Your task to perform on an android device: turn off translation in the chrome app Image 0: 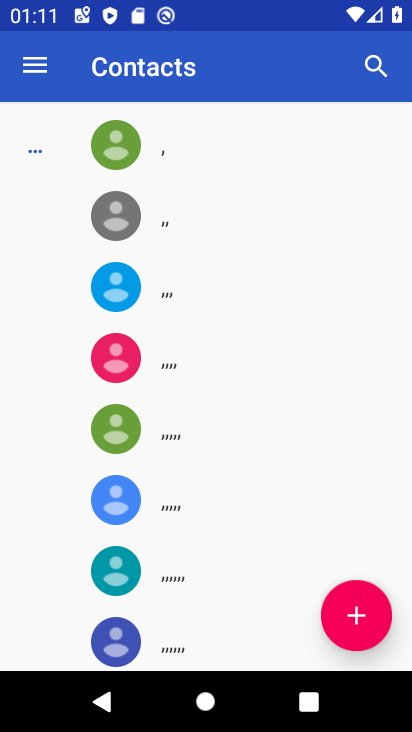
Step 0: press home button
Your task to perform on an android device: turn off translation in the chrome app Image 1: 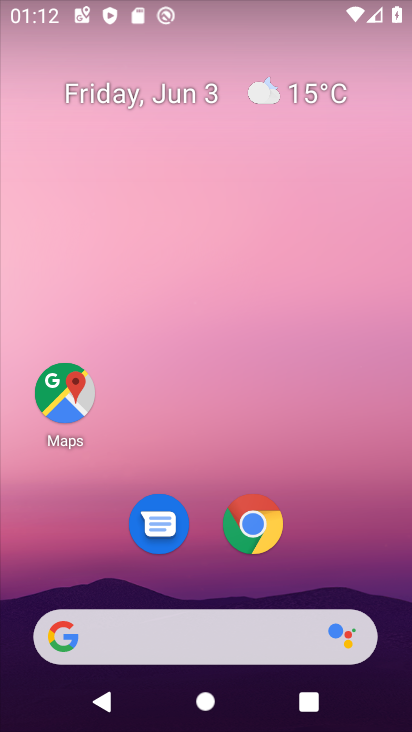
Step 1: click (258, 510)
Your task to perform on an android device: turn off translation in the chrome app Image 2: 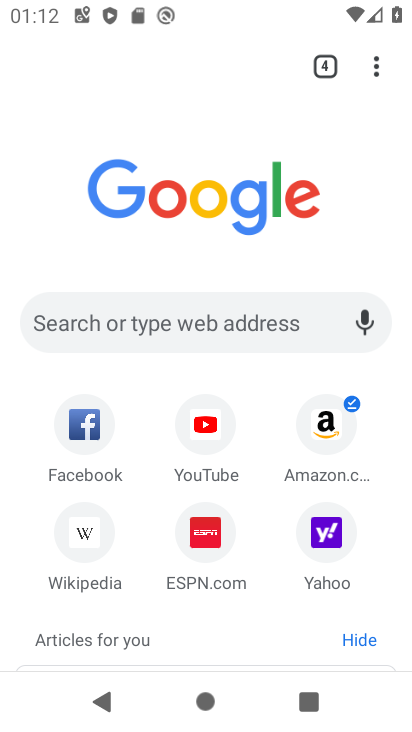
Step 2: click (376, 68)
Your task to perform on an android device: turn off translation in the chrome app Image 3: 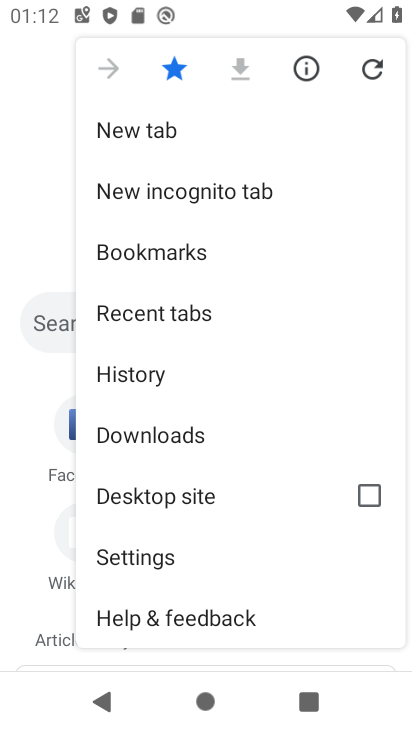
Step 3: click (217, 553)
Your task to perform on an android device: turn off translation in the chrome app Image 4: 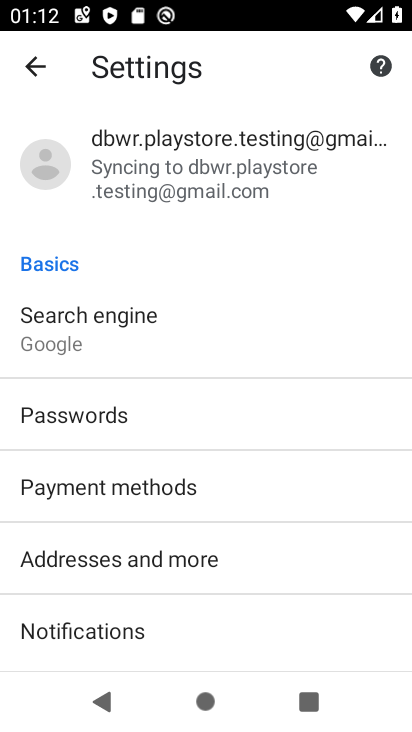
Step 4: drag from (244, 626) to (276, 144)
Your task to perform on an android device: turn off translation in the chrome app Image 5: 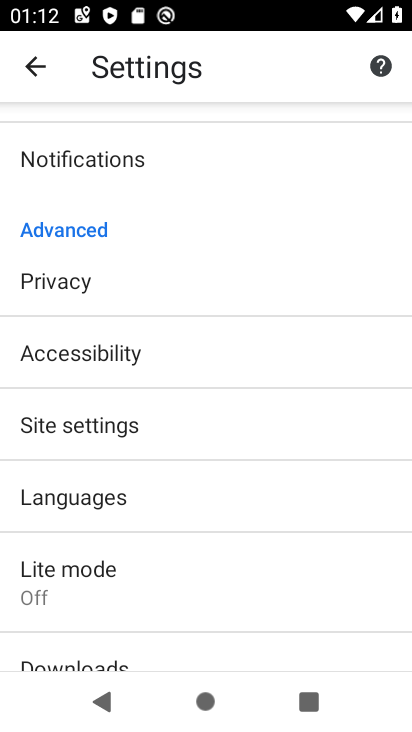
Step 5: click (228, 485)
Your task to perform on an android device: turn off translation in the chrome app Image 6: 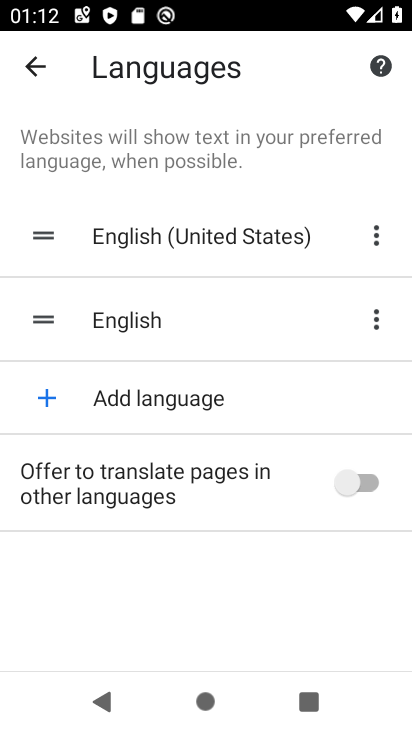
Step 6: task complete